Your task to perform on an android device: toggle notifications settings in the gmail app Image 0: 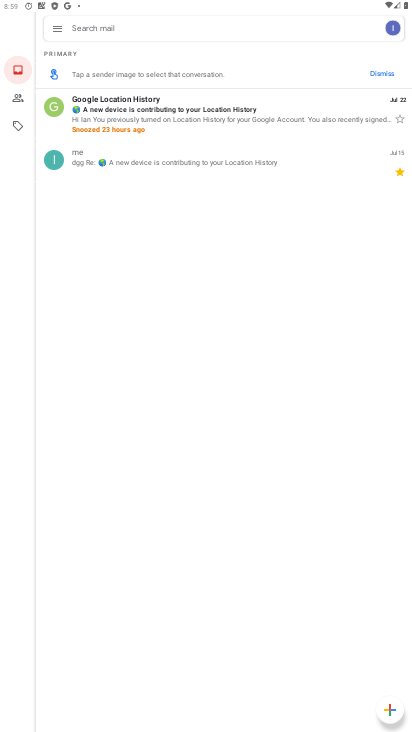
Step 0: click (52, 27)
Your task to perform on an android device: toggle notifications settings in the gmail app Image 1: 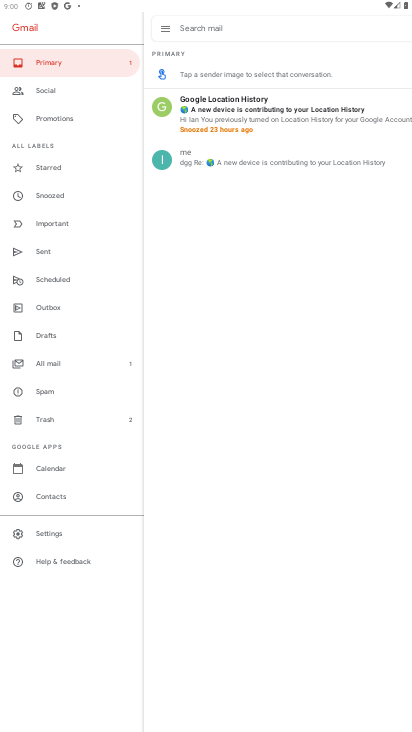
Step 1: click (63, 527)
Your task to perform on an android device: toggle notifications settings in the gmail app Image 2: 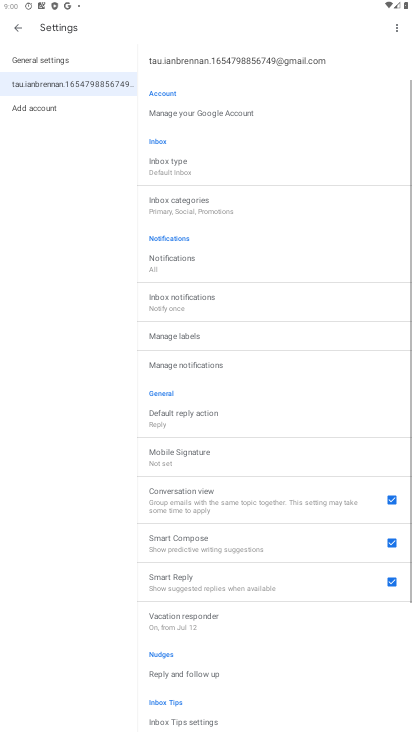
Step 2: drag from (168, 599) to (199, 237)
Your task to perform on an android device: toggle notifications settings in the gmail app Image 3: 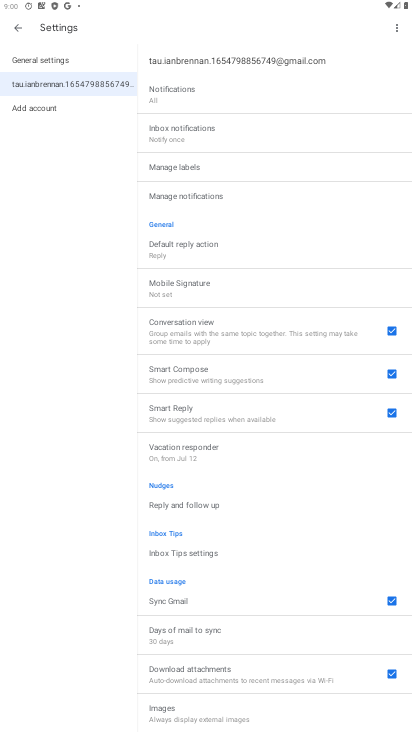
Step 3: drag from (212, 437) to (239, 88)
Your task to perform on an android device: toggle notifications settings in the gmail app Image 4: 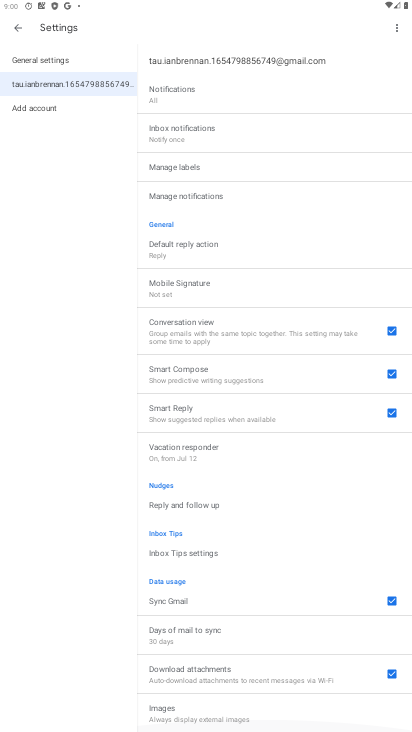
Step 4: drag from (196, 247) to (285, 691)
Your task to perform on an android device: toggle notifications settings in the gmail app Image 5: 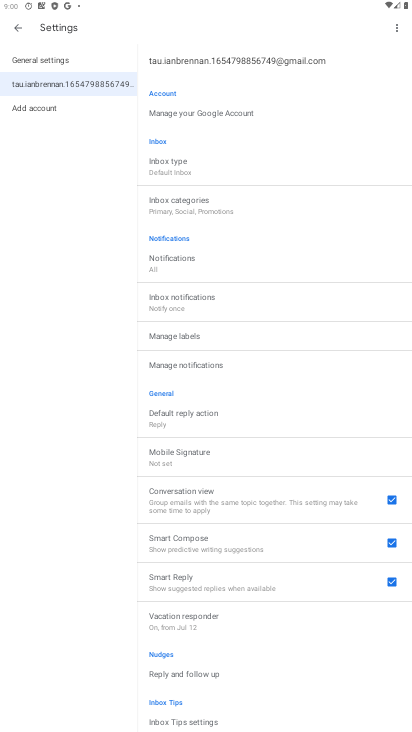
Step 5: click (42, 85)
Your task to perform on an android device: toggle notifications settings in the gmail app Image 6: 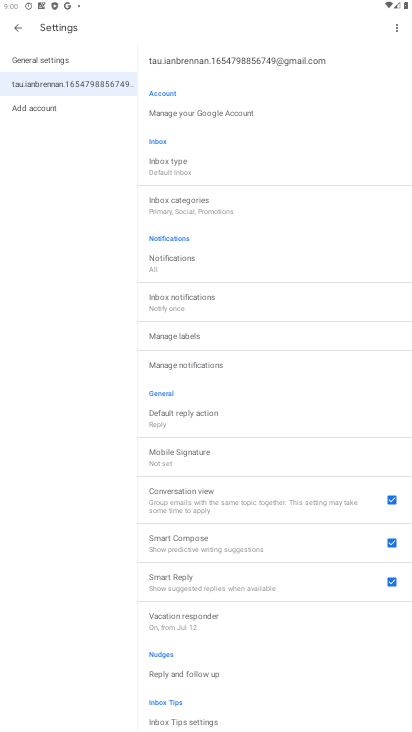
Step 6: click (47, 85)
Your task to perform on an android device: toggle notifications settings in the gmail app Image 7: 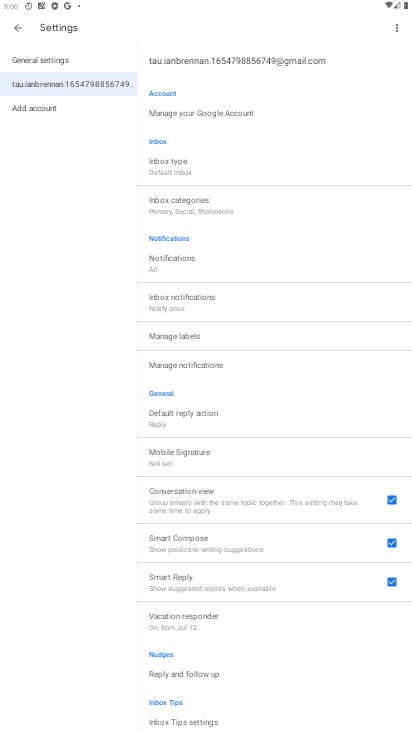
Step 7: drag from (221, 464) to (247, 56)
Your task to perform on an android device: toggle notifications settings in the gmail app Image 8: 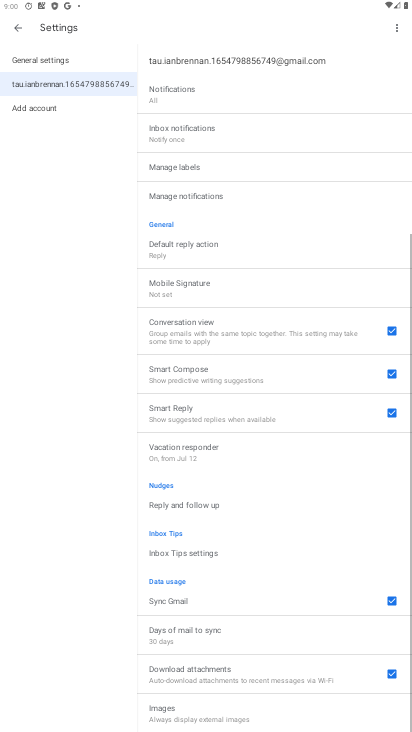
Step 8: drag from (242, 609) to (247, 351)
Your task to perform on an android device: toggle notifications settings in the gmail app Image 9: 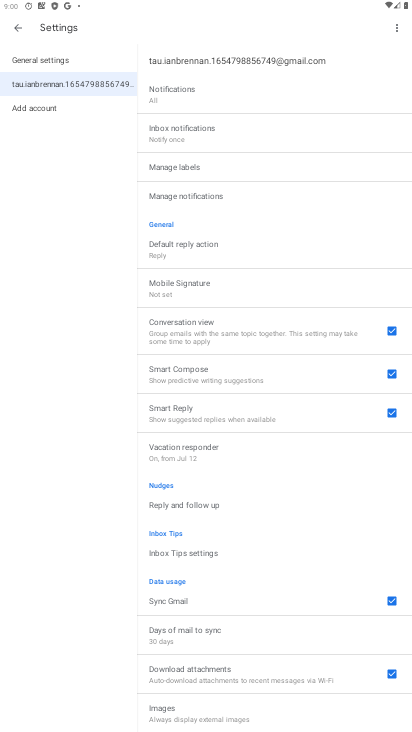
Step 9: drag from (226, 538) to (244, 211)
Your task to perform on an android device: toggle notifications settings in the gmail app Image 10: 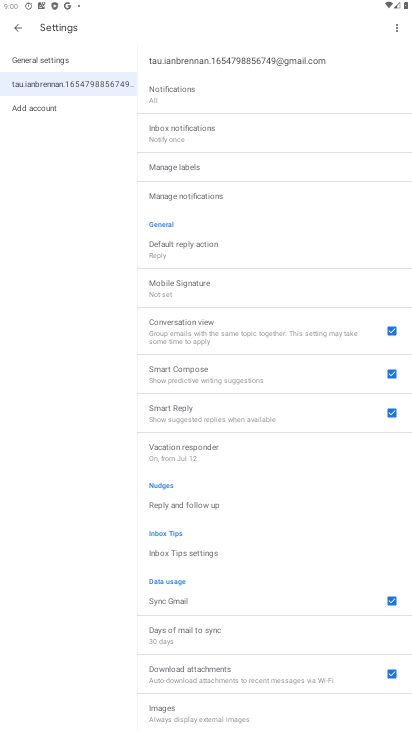
Step 10: drag from (264, 641) to (257, 290)
Your task to perform on an android device: toggle notifications settings in the gmail app Image 11: 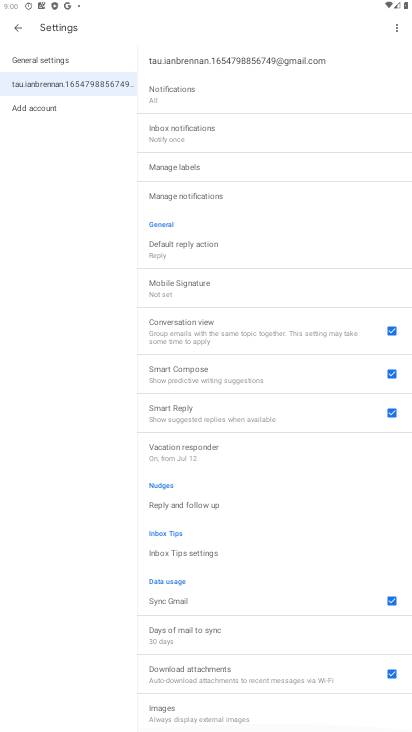
Step 11: drag from (250, 183) to (245, 650)
Your task to perform on an android device: toggle notifications settings in the gmail app Image 12: 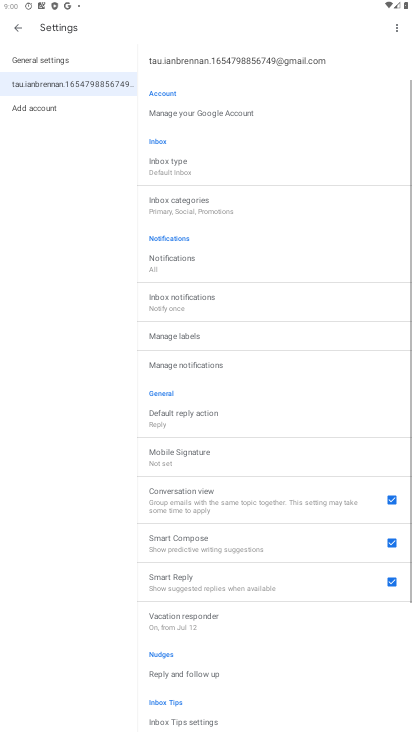
Step 12: drag from (272, 165) to (212, 430)
Your task to perform on an android device: toggle notifications settings in the gmail app Image 13: 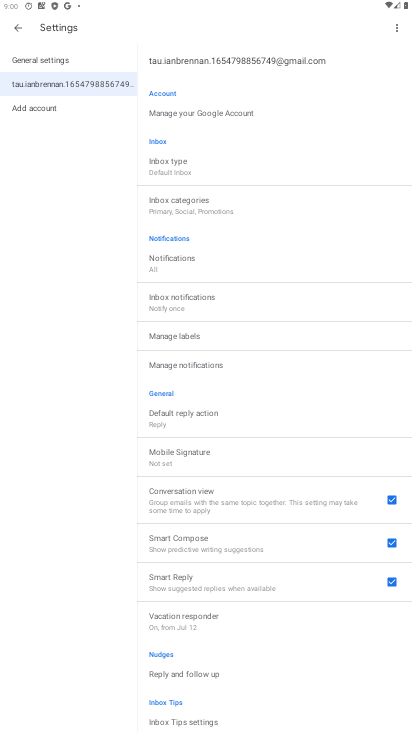
Step 13: drag from (275, 161) to (194, 651)
Your task to perform on an android device: toggle notifications settings in the gmail app Image 14: 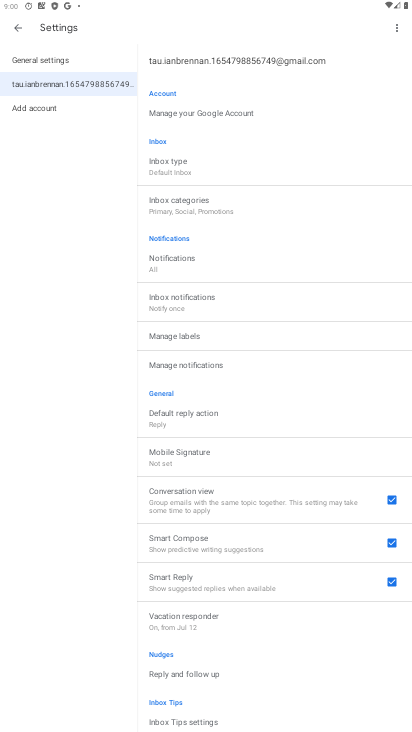
Step 14: click (223, 361)
Your task to perform on an android device: toggle notifications settings in the gmail app Image 15: 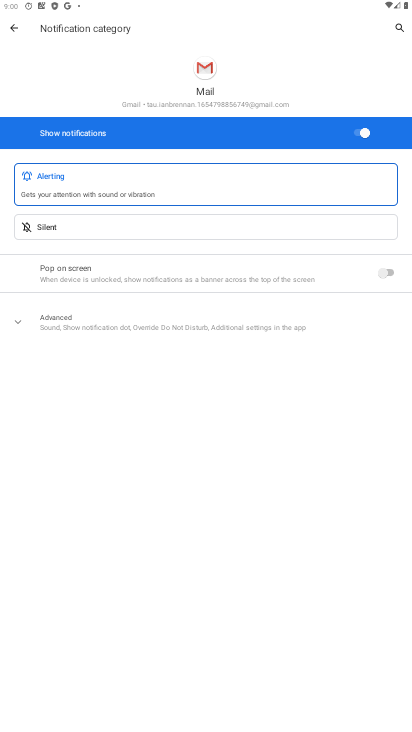
Step 15: click (365, 131)
Your task to perform on an android device: toggle notifications settings in the gmail app Image 16: 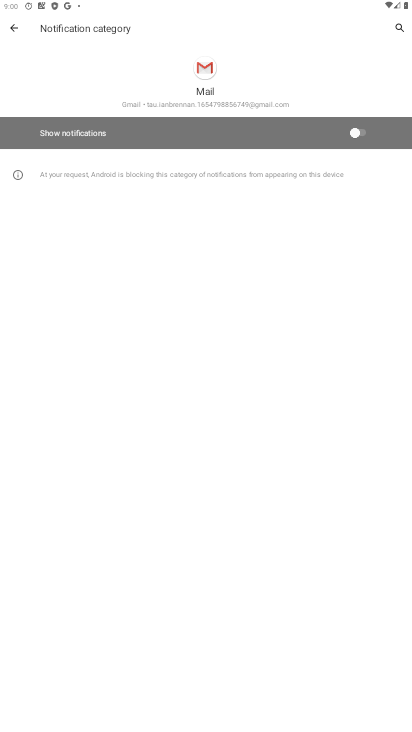
Step 16: task complete